Your task to perform on an android device: Open eBay Image 0: 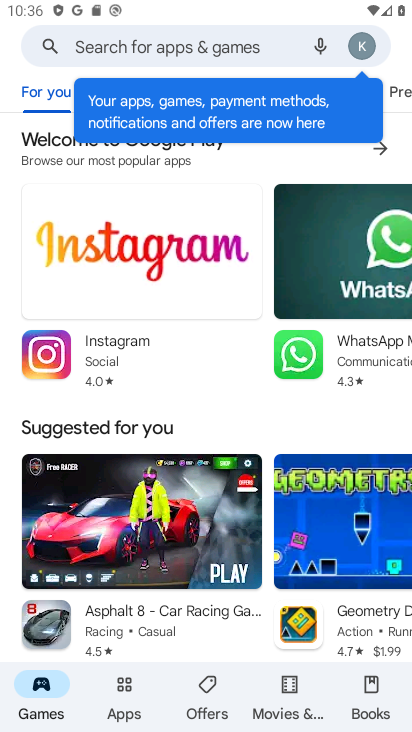
Step 0: press home button
Your task to perform on an android device: Open eBay Image 1: 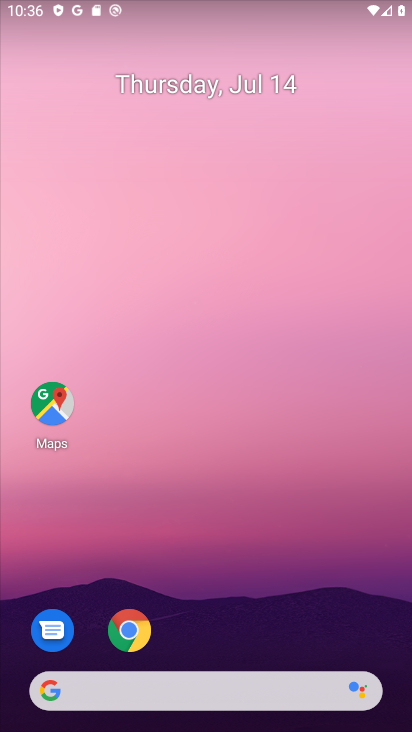
Step 1: click (129, 629)
Your task to perform on an android device: Open eBay Image 2: 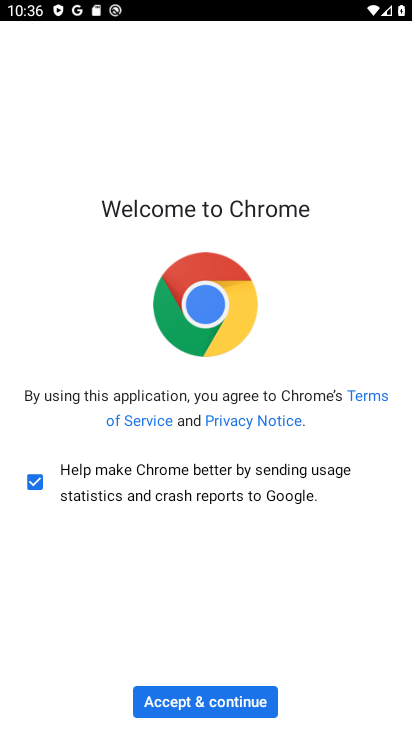
Step 2: click (203, 704)
Your task to perform on an android device: Open eBay Image 3: 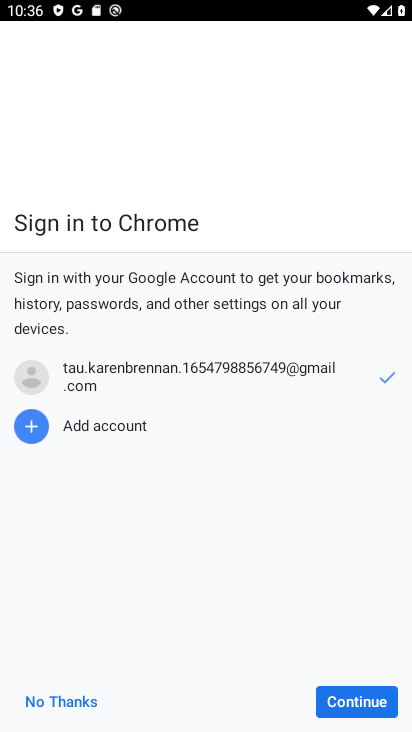
Step 3: click (346, 706)
Your task to perform on an android device: Open eBay Image 4: 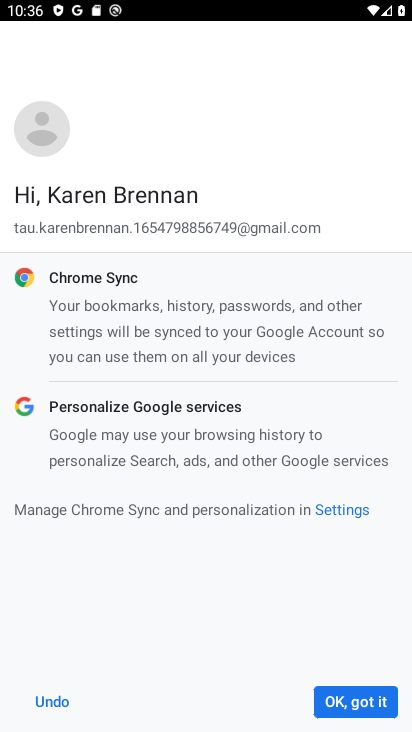
Step 4: click (358, 701)
Your task to perform on an android device: Open eBay Image 5: 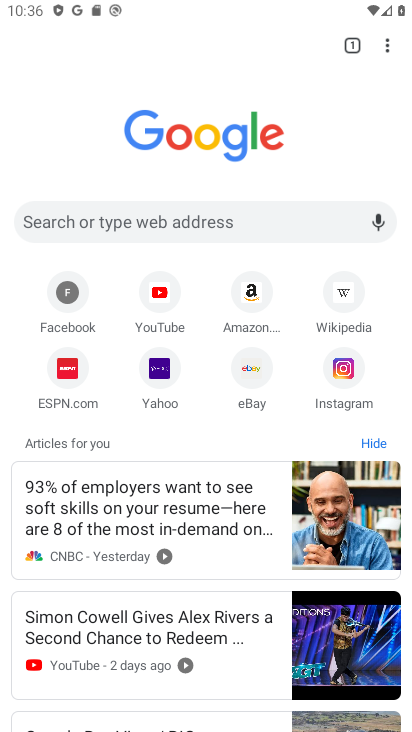
Step 5: click (238, 360)
Your task to perform on an android device: Open eBay Image 6: 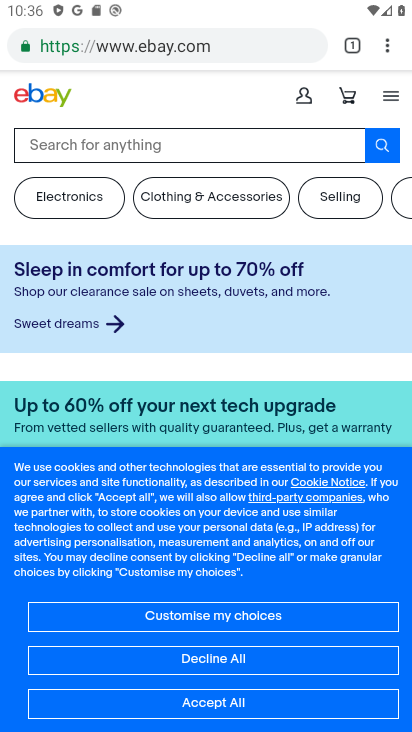
Step 6: click (240, 714)
Your task to perform on an android device: Open eBay Image 7: 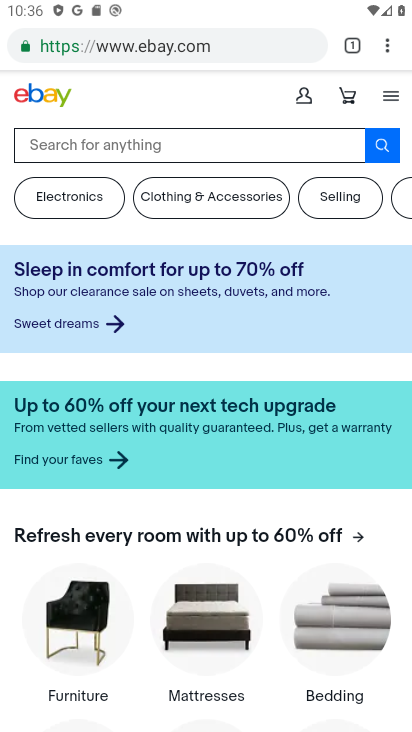
Step 7: task complete